Your task to perform on an android device: Open Youtube and go to "Your channel" Image 0: 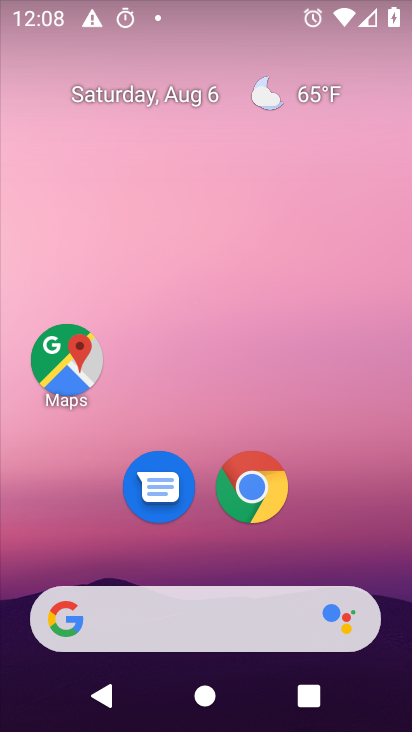
Step 0: drag from (182, 587) to (238, 65)
Your task to perform on an android device: Open Youtube and go to "Your channel" Image 1: 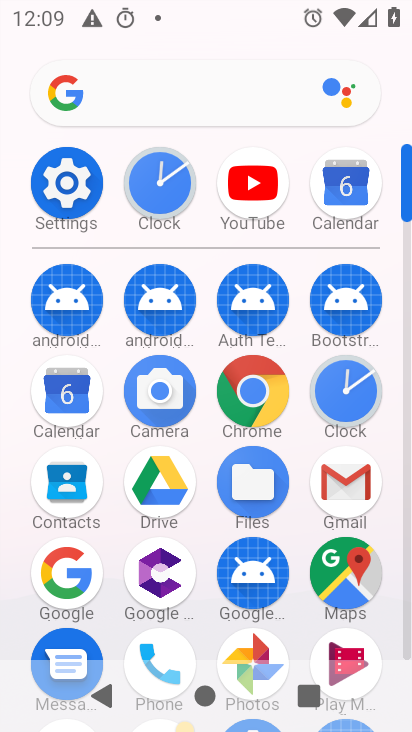
Step 1: click (258, 185)
Your task to perform on an android device: Open Youtube and go to "Your channel" Image 2: 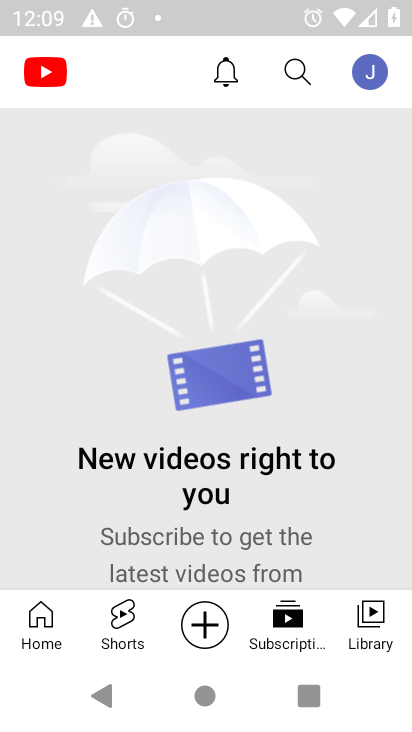
Step 2: click (368, 78)
Your task to perform on an android device: Open Youtube and go to "Your channel" Image 3: 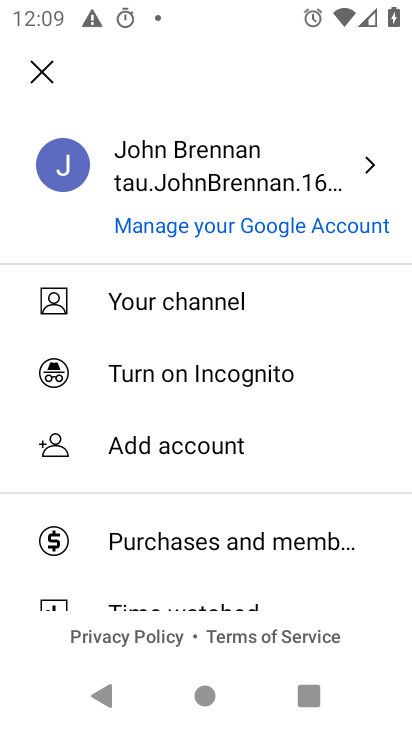
Step 3: click (140, 298)
Your task to perform on an android device: Open Youtube and go to "Your channel" Image 4: 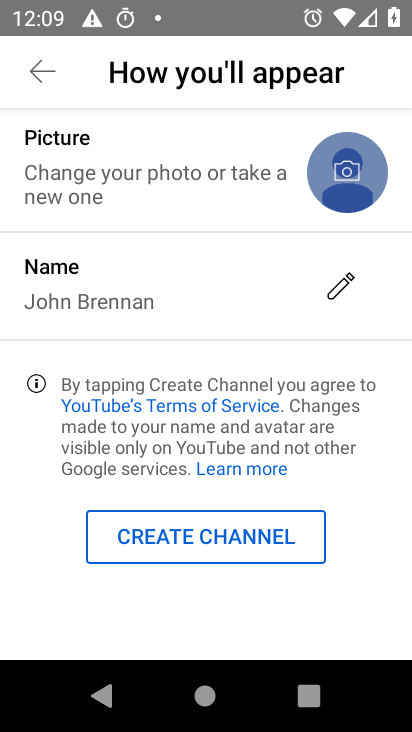
Step 4: task complete